Your task to perform on an android device: See recent photos Image 0: 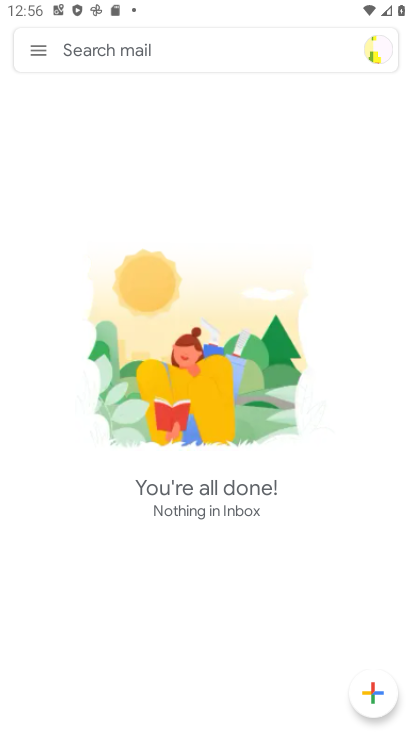
Step 0: press home button
Your task to perform on an android device: See recent photos Image 1: 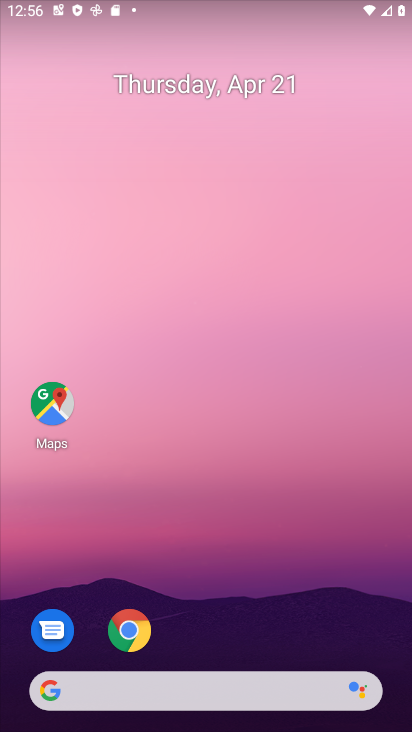
Step 1: drag from (282, 638) to (264, 85)
Your task to perform on an android device: See recent photos Image 2: 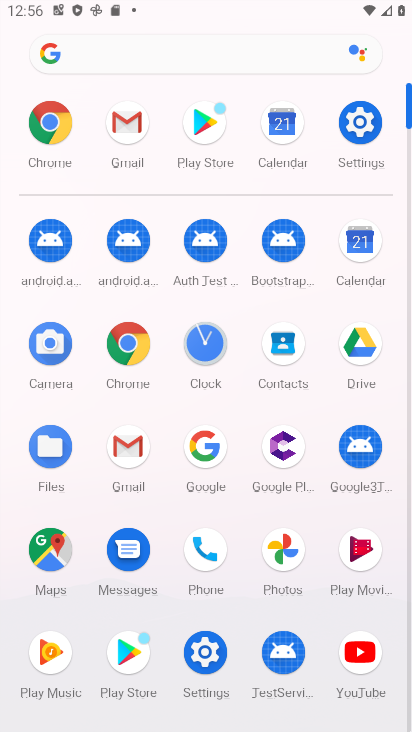
Step 2: click (286, 558)
Your task to perform on an android device: See recent photos Image 3: 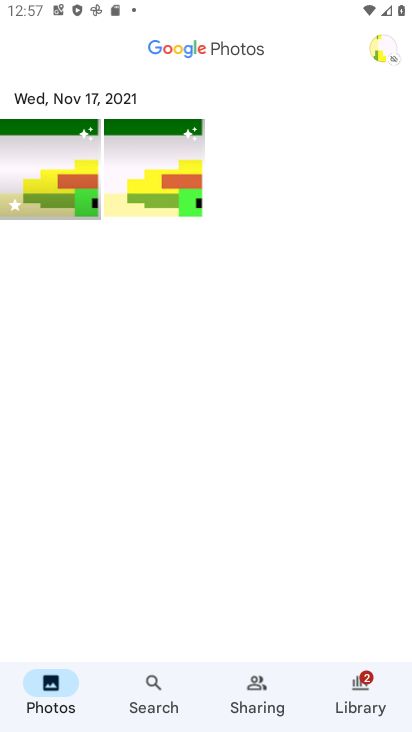
Step 3: task complete